Your task to perform on an android device: turn off data saver in the chrome app Image 0: 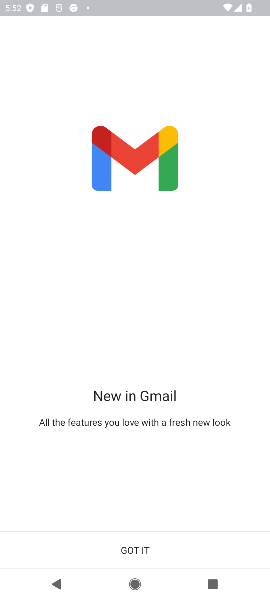
Step 0: press home button
Your task to perform on an android device: turn off data saver in the chrome app Image 1: 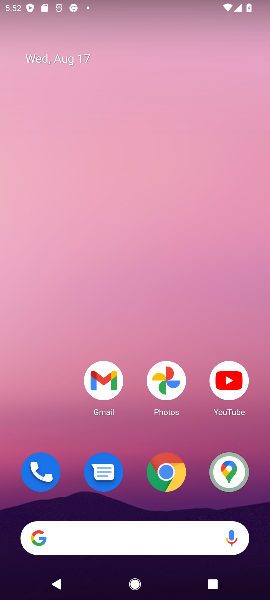
Step 1: click (156, 474)
Your task to perform on an android device: turn off data saver in the chrome app Image 2: 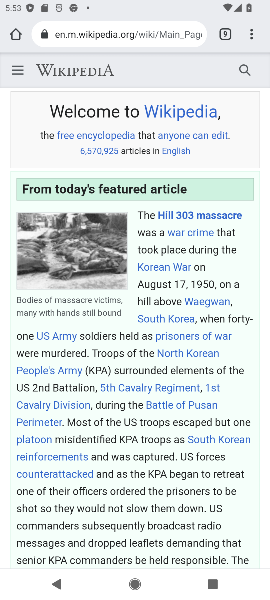
Step 2: click (252, 38)
Your task to perform on an android device: turn off data saver in the chrome app Image 3: 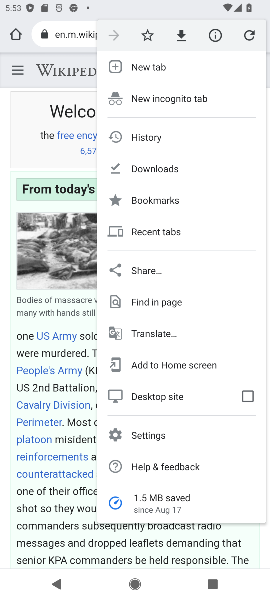
Step 3: click (164, 436)
Your task to perform on an android device: turn off data saver in the chrome app Image 4: 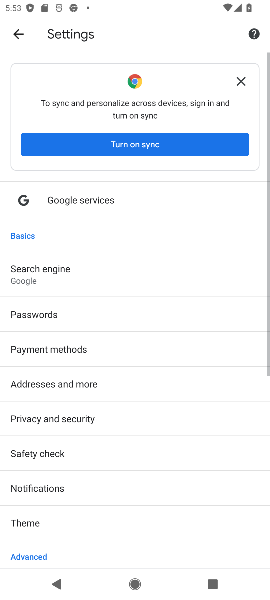
Step 4: drag from (128, 514) to (131, 211)
Your task to perform on an android device: turn off data saver in the chrome app Image 5: 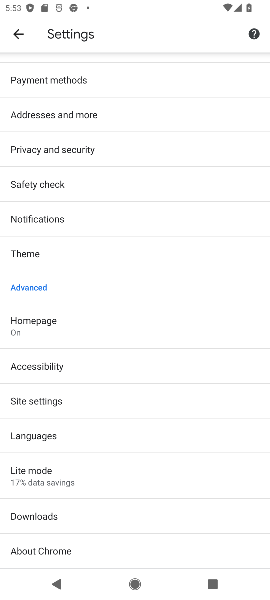
Step 5: click (77, 480)
Your task to perform on an android device: turn off data saver in the chrome app Image 6: 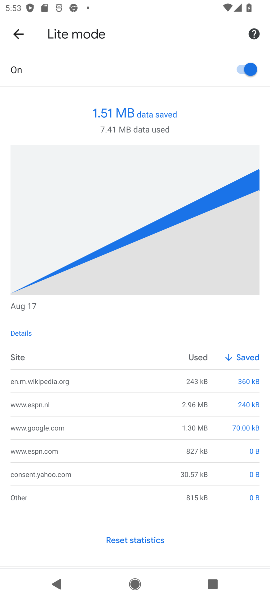
Step 6: click (238, 65)
Your task to perform on an android device: turn off data saver in the chrome app Image 7: 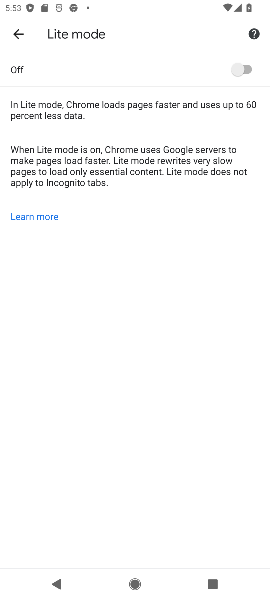
Step 7: task complete